Your task to perform on an android device: Open calendar and show me the second week of next month Image 0: 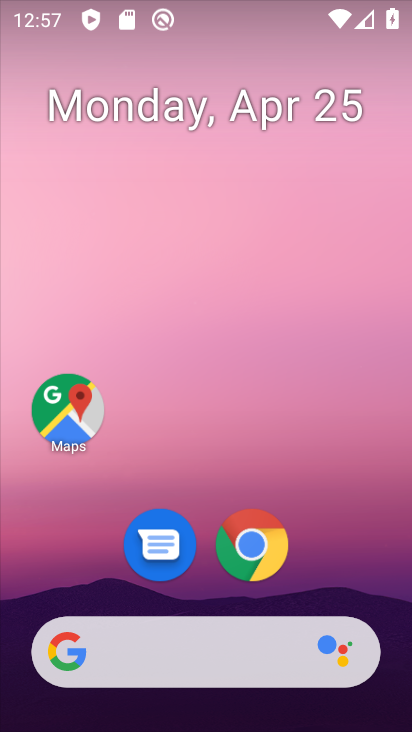
Step 0: drag from (287, 466) to (52, 98)
Your task to perform on an android device: Open calendar and show me the second week of next month Image 1: 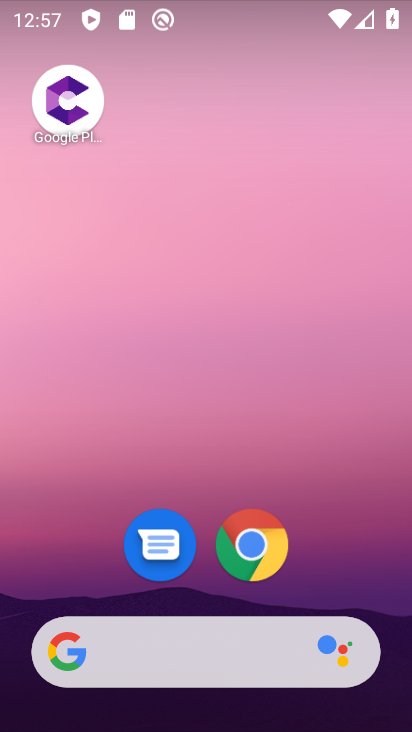
Step 1: drag from (228, 426) to (174, 47)
Your task to perform on an android device: Open calendar and show me the second week of next month Image 2: 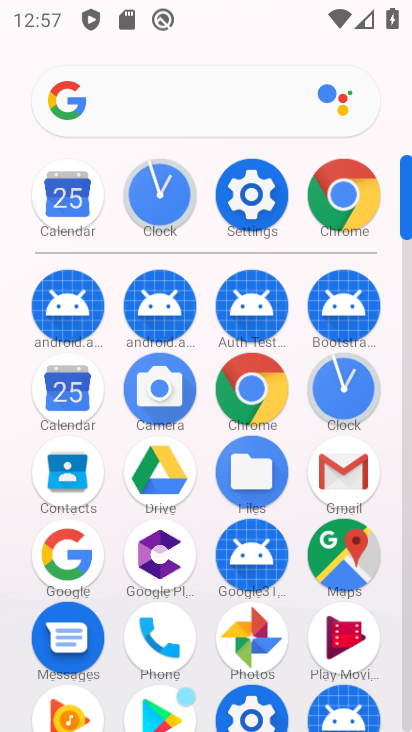
Step 2: click (68, 190)
Your task to perform on an android device: Open calendar and show me the second week of next month Image 3: 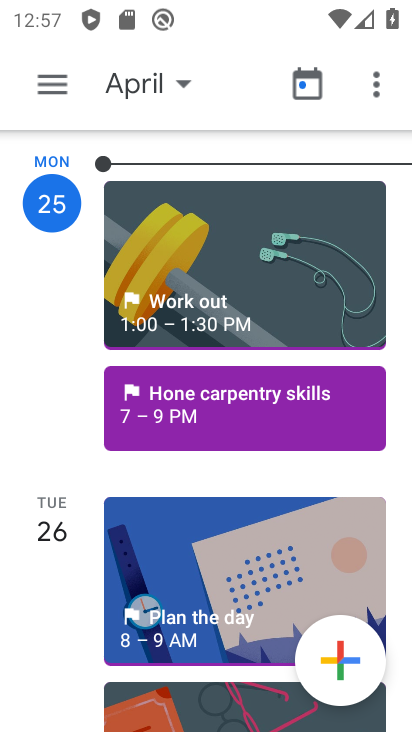
Step 3: click (122, 88)
Your task to perform on an android device: Open calendar and show me the second week of next month Image 4: 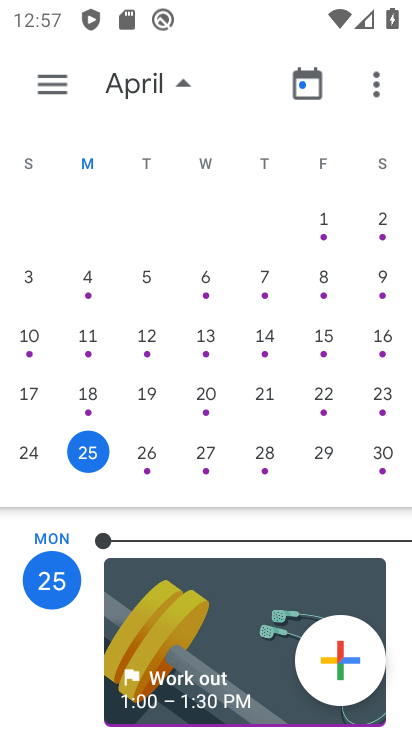
Step 4: drag from (207, 362) to (7, 330)
Your task to perform on an android device: Open calendar and show me the second week of next month Image 5: 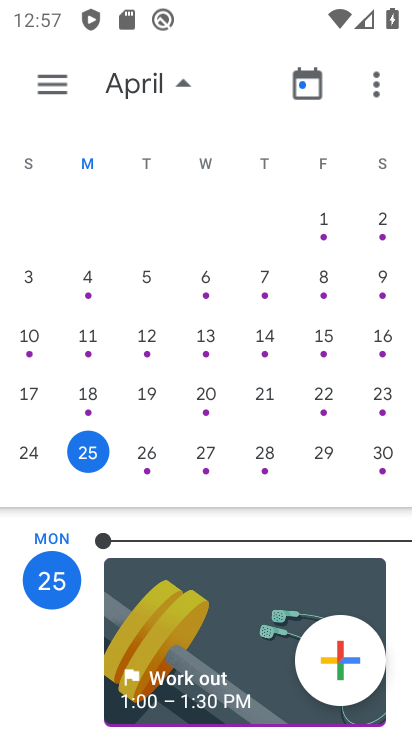
Step 5: drag from (306, 368) to (38, 365)
Your task to perform on an android device: Open calendar and show me the second week of next month Image 6: 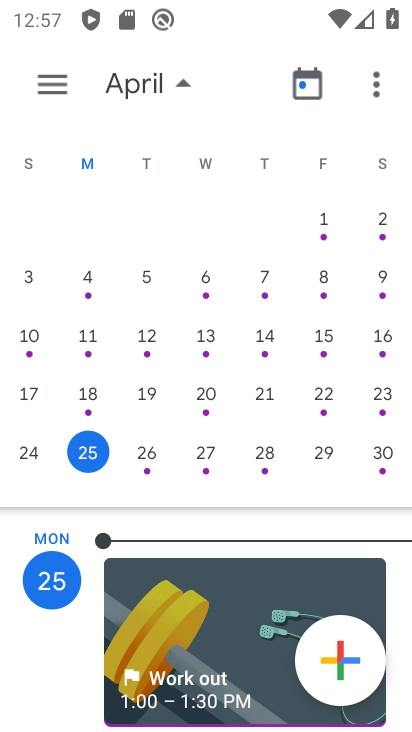
Step 6: drag from (251, 421) to (33, 380)
Your task to perform on an android device: Open calendar and show me the second week of next month Image 7: 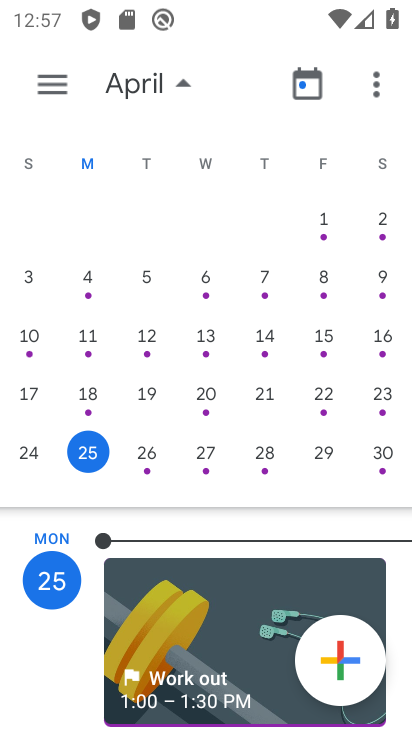
Step 7: drag from (375, 324) to (0, 289)
Your task to perform on an android device: Open calendar and show me the second week of next month Image 8: 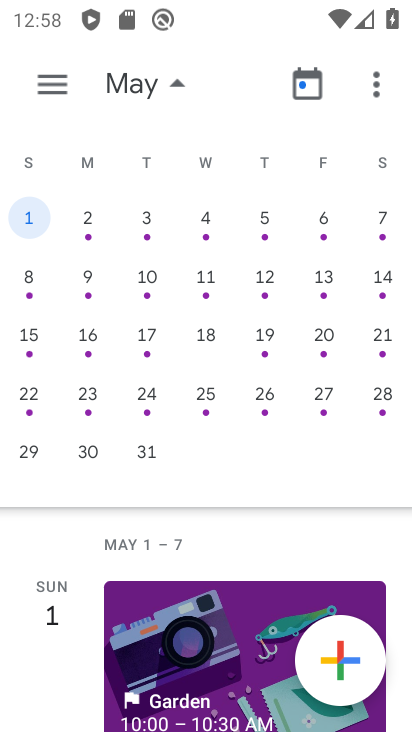
Step 8: click (26, 280)
Your task to perform on an android device: Open calendar and show me the second week of next month Image 9: 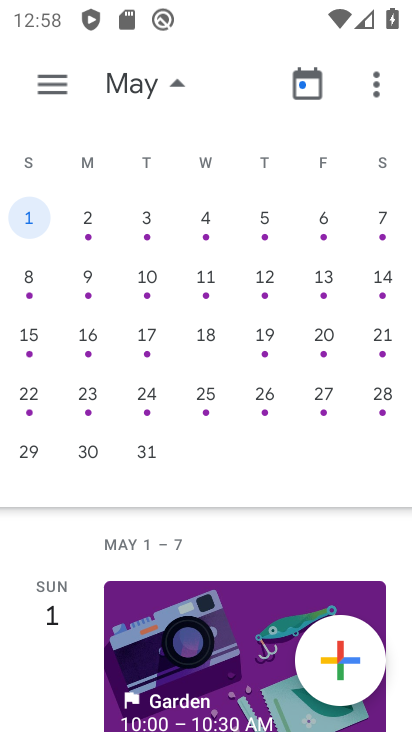
Step 9: click (31, 277)
Your task to perform on an android device: Open calendar and show me the second week of next month Image 10: 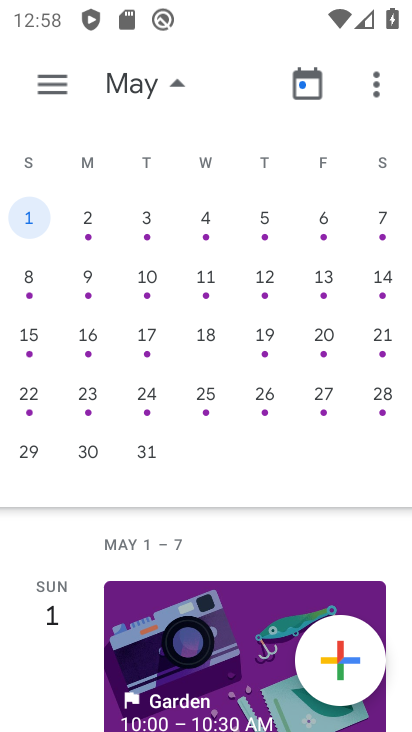
Step 10: click (30, 272)
Your task to perform on an android device: Open calendar and show me the second week of next month Image 11: 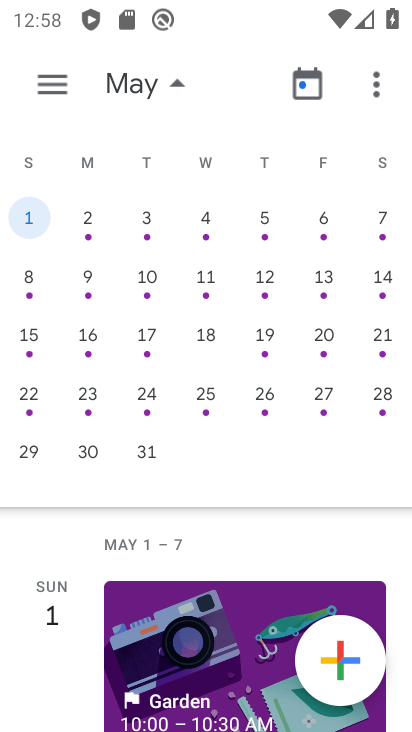
Step 11: click (29, 292)
Your task to perform on an android device: Open calendar and show me the second week of next month Image 12: 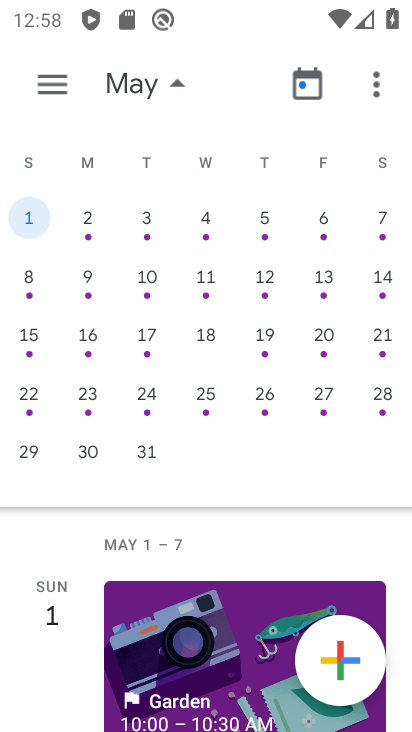
Step 12: click (32, 295)
Your task to perform on an android device: Open calendar and show me the second week of next month Image 13: 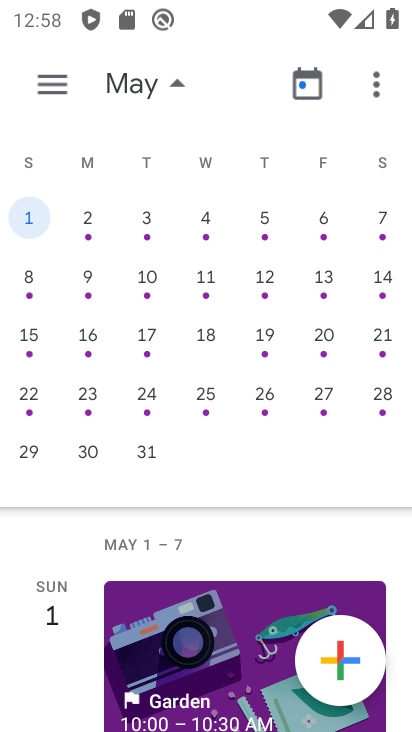
Step 13: click (28, 279)
Your task to perform on an android device: Open calendar and show me the second week of next month Image 14: 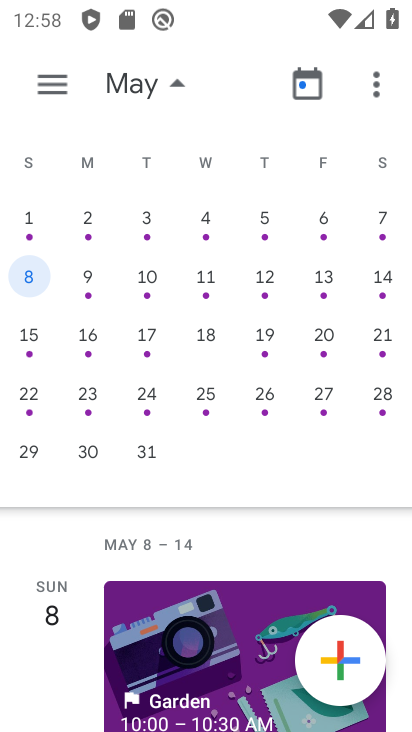
Step 14: click (58, 96)
Your task to perform on an android device: Open calendar and show me the second week of next month Image 15: 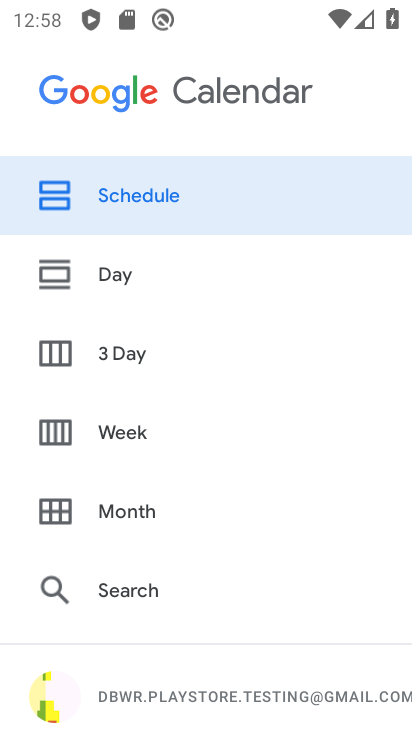
Step 15: click (88, 439)
Your task to perform on an android device: Open calendar and show me the second week of next month Image 16: 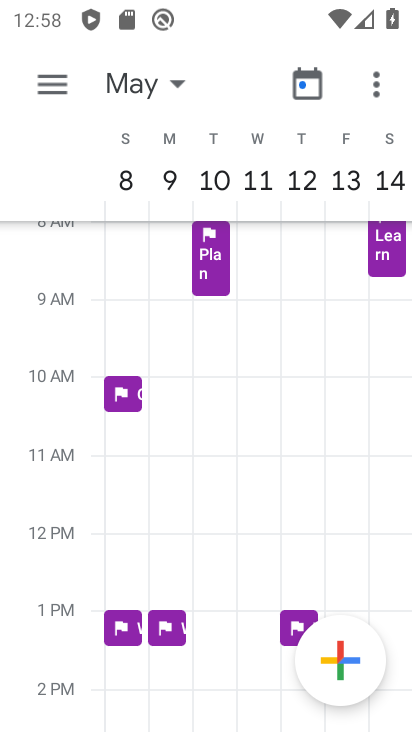
Step 16: task complete